Your task to perform on an android device: turn on showing notifications on the lock screen Image 0: 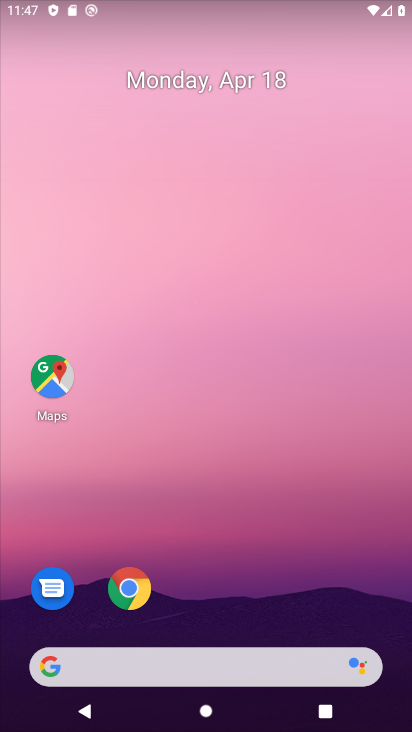
Step 0: drag from (387, 579) to (390, 84)
Your task to perform on an android device: turn on showing notifications on the lock screen Image 1: 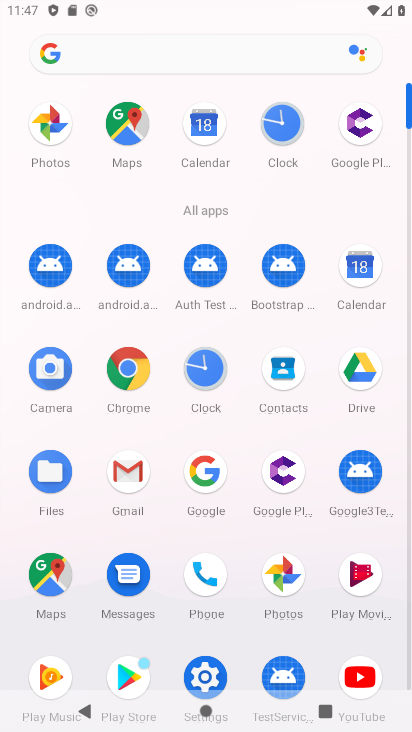
Step 1: drag from (237, 587) to (240, 327)
Your task to perform on an android device: turn on showing notifications on the lock screen Image 2: 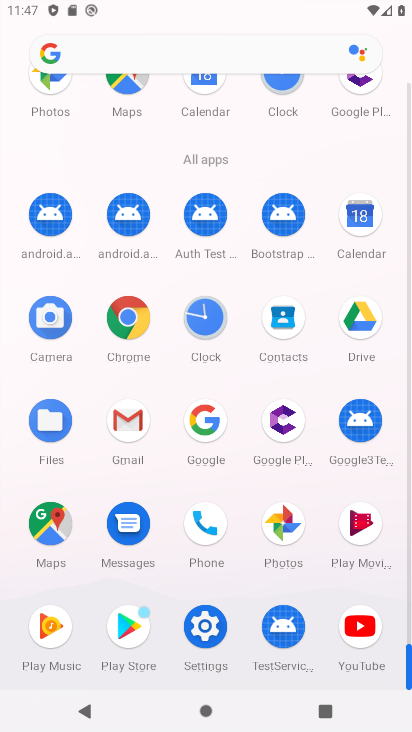
Step 2: click (204, 617)
Your task to perform on an android device: turn on showing notifications on the lock screen Image 3: 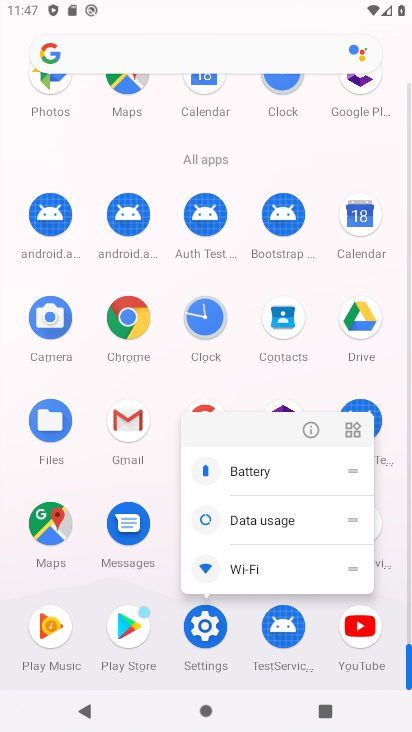
Step 3: click (204, 623)
Your task to perform on an android device: turn on showing notifications on the lock screen Image 4: 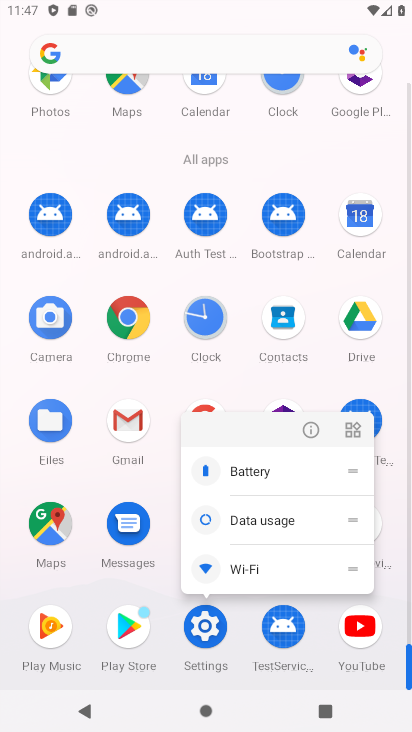
Step 4: click (206, 633)
Your task to perform on an android device: turn on showing notifications on the lock screen Image 5: 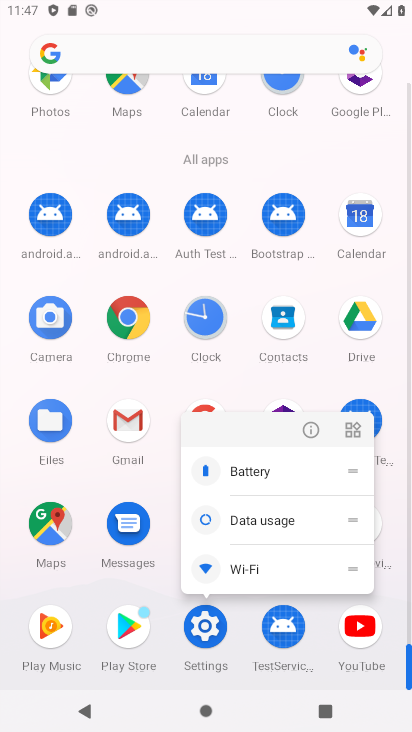
Step 5: click (207, 637)
Your task to perform on an android device: turn on showing notifications on the lock screen Image 6: 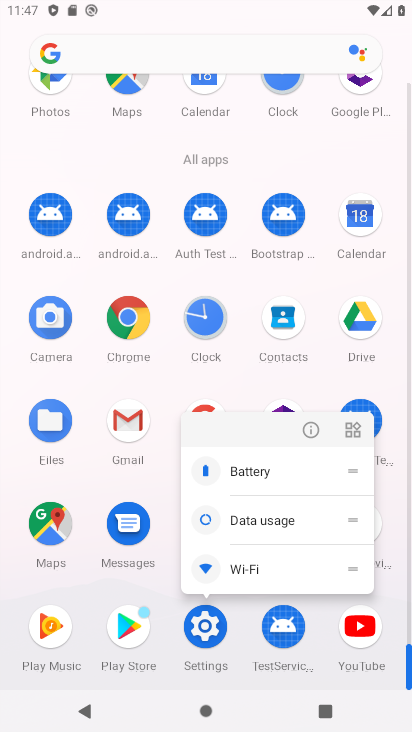
Step 6: click (209, 633)
Your task to perform on an android device: turn on showing notifications on the lock screen Image 7: 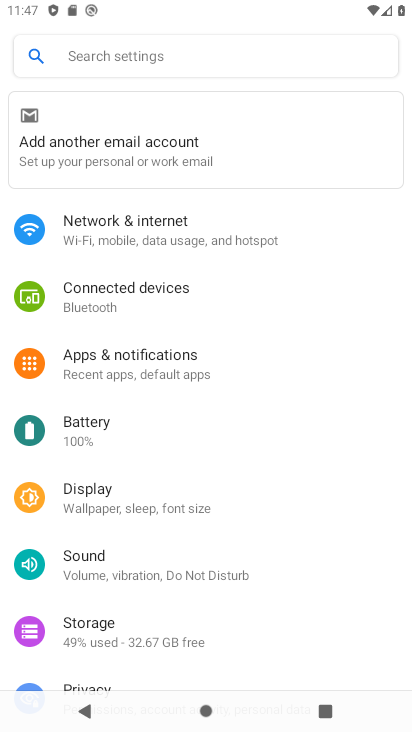
Step 7: click (173, 359)
Your task to perform on an android device: turn on showing notifications on the lock screen Image 8: 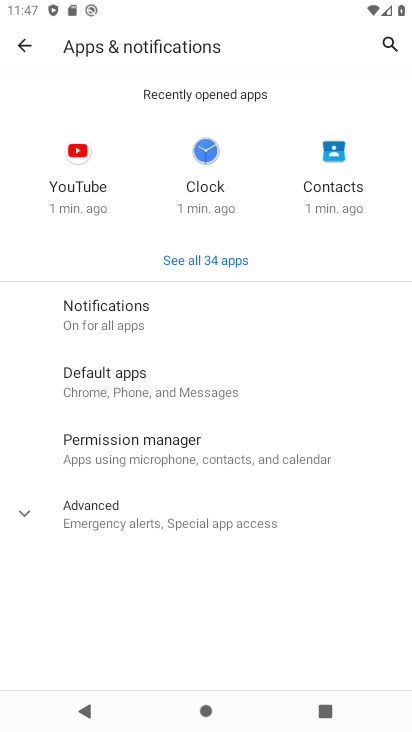
Step 8: click (118, 311)
Your task to perform on an android device: turn on showing notifications on the lock screen Image 9: 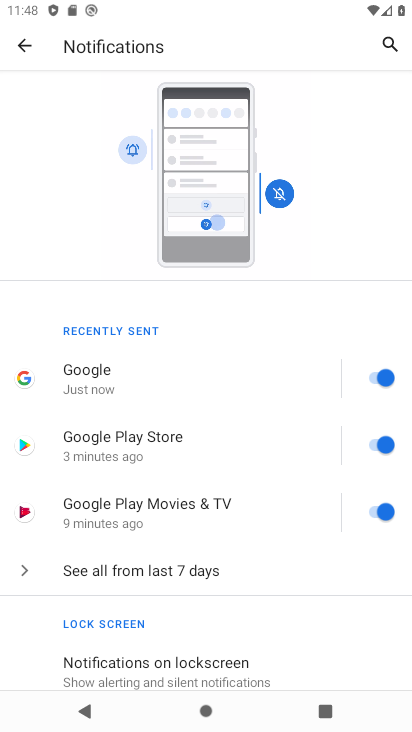
Step 9: drag from (289, 591) to (294, 322)
Your task to perform on an android device: turn on showing notifications on the lock screen Image 10: 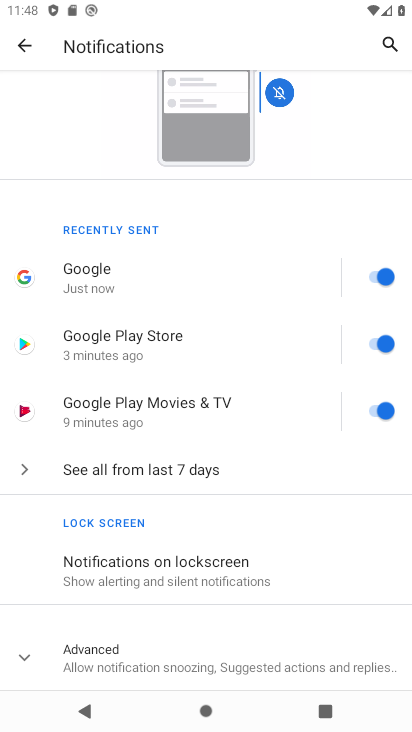
Step 10: click (176, 557)
Your task to perform on an android device: turn on showing notifications on the lock screen Image 11: 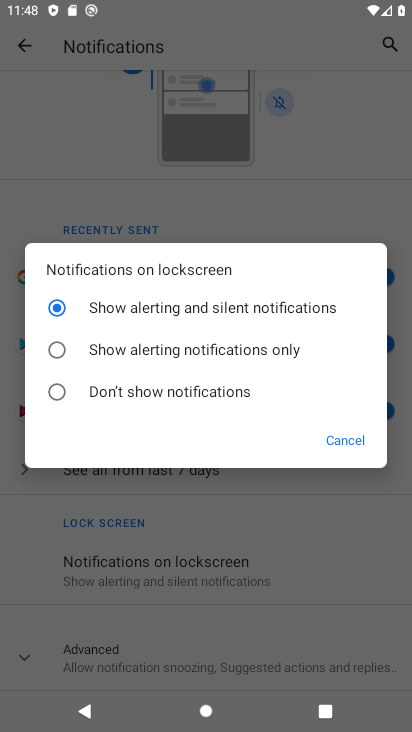
Step 11: task complete